Your task to perform on an android device: stop showing notifications on the lock screen Image 0: 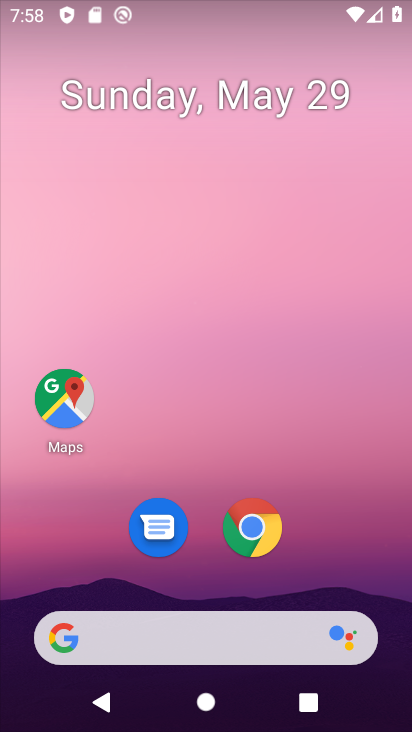
Step 0: press home button
Your task to perform on an android device: stop showing notifications on the lock screen Image 1: 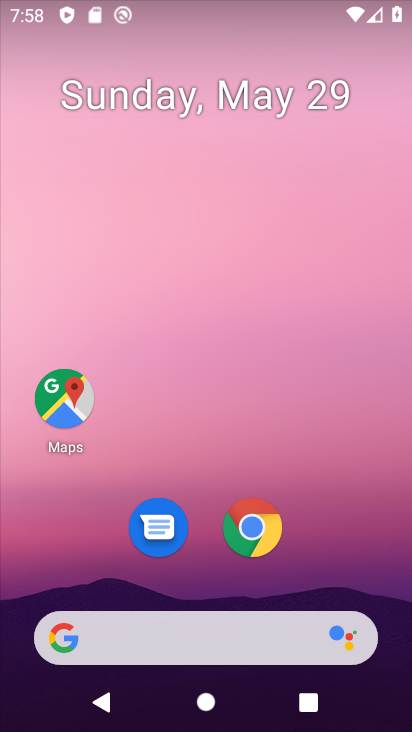
Step 1: drag from (211, 583) to (223, 97)
Your task to perform on an android device: stop showing notifications on the lock screen Image 2: 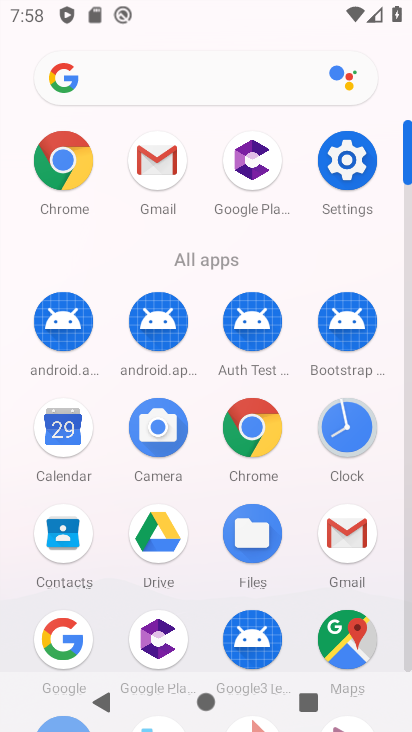
Step 2: click (342, 149)
Your task to perform on an android device: stop showing notifications on the lock screen Image 3: 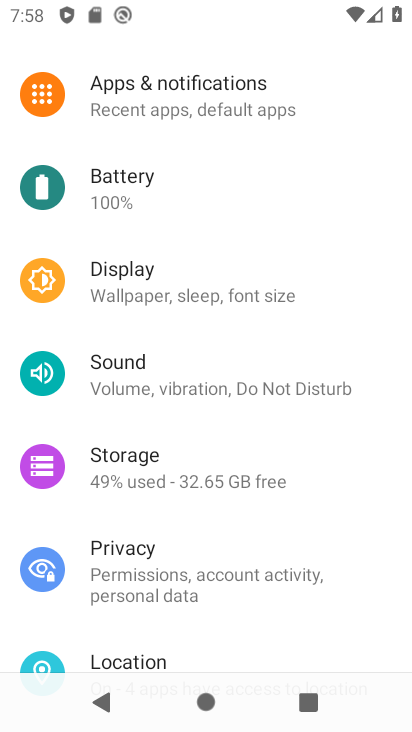
Step 3: click (159, 100)
Your task to perform on an android device: stop showing notifications on the lock screen Image 4: 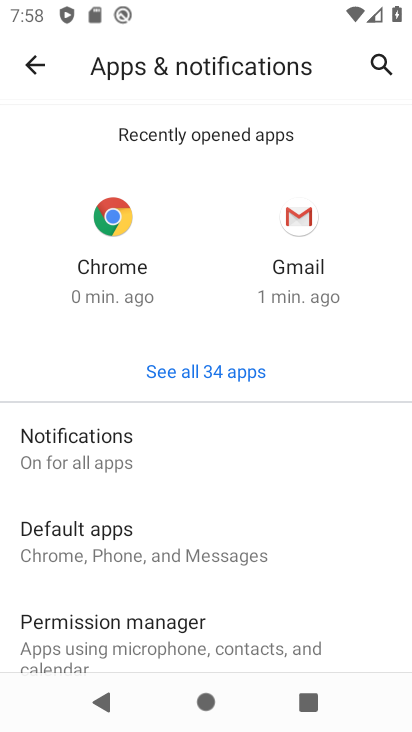
Step 4: click (152, 443)
Your task to perform on an android device: stop showing notifications on the lock screen Image 5: 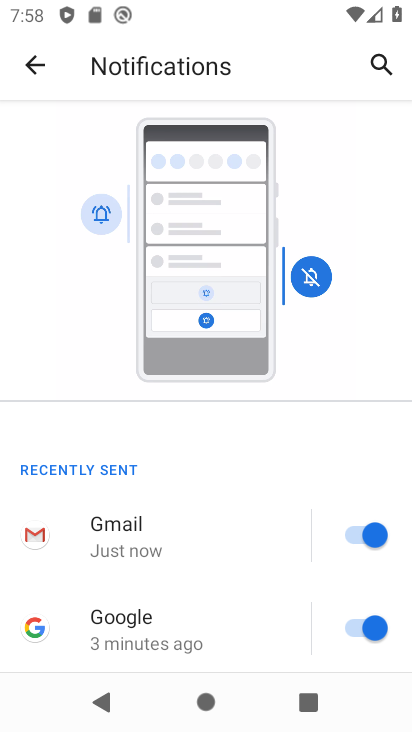
Step 5: drag from (243, 630) to (233, 176)
Your task to perform on an android device: stop showing notifications on the lock screen Image 6: 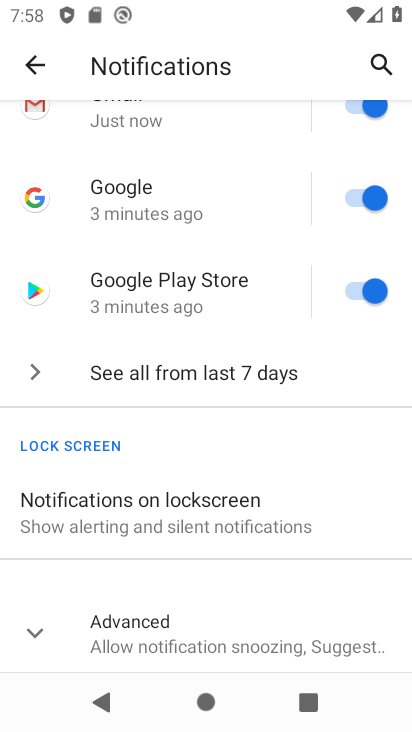
Step 6: click (231, 517)
Your task to perform on an android device: stop showing notifications on the lock screen Image 7: 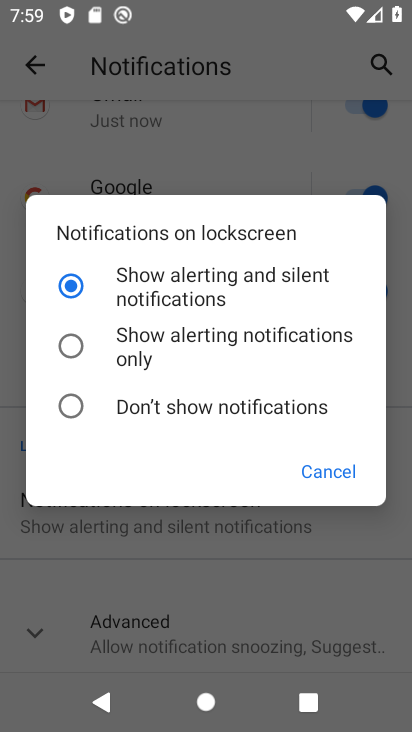
Step 7: click (76, 407)
Your task to perform on an android device: stop showing notifications on the lock screen Image 8: 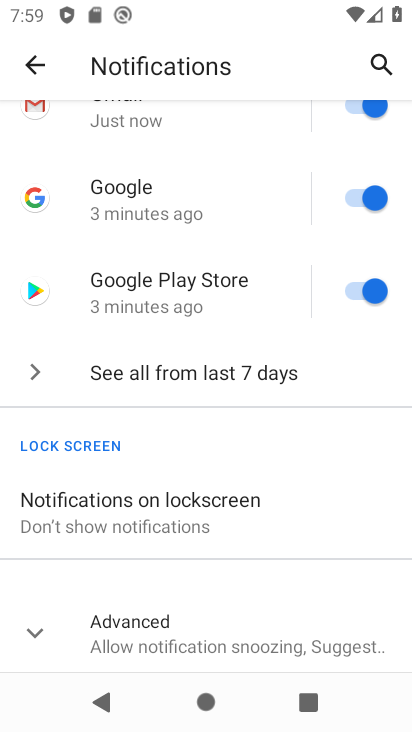
Step 8: task complete